Your task to perform on an android device: find which apps use the phone's location Image 0: 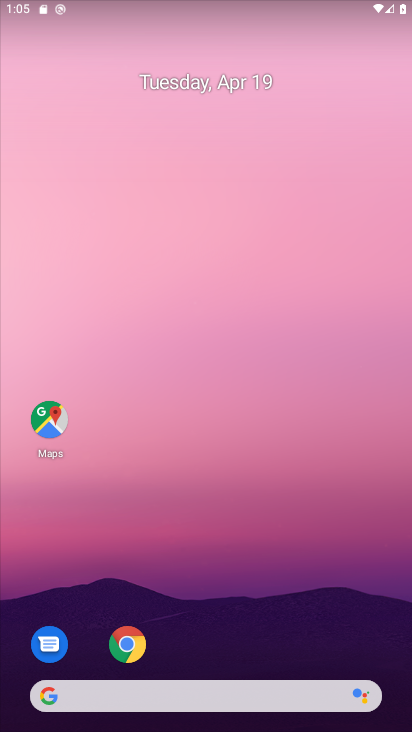
Step 0: drag from (252, 423) to (403, 161)
Your task to perform on an android device: find which apps use the phone's location Image 1: 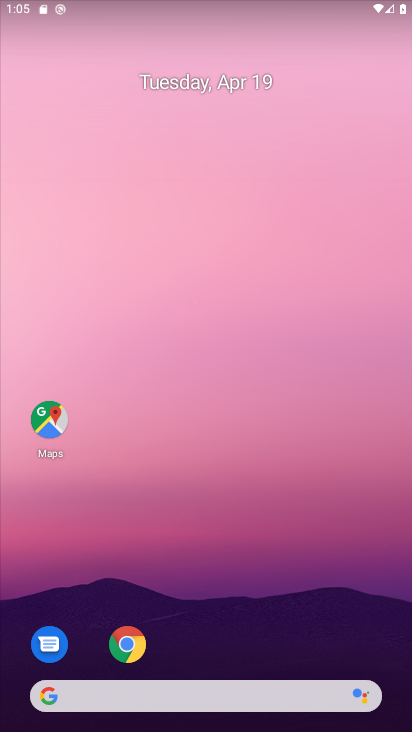
Step 1: drag from (220, 635) to (354, 21)
Your task to perform on an android device: find which apps use the phone's location Image 2: 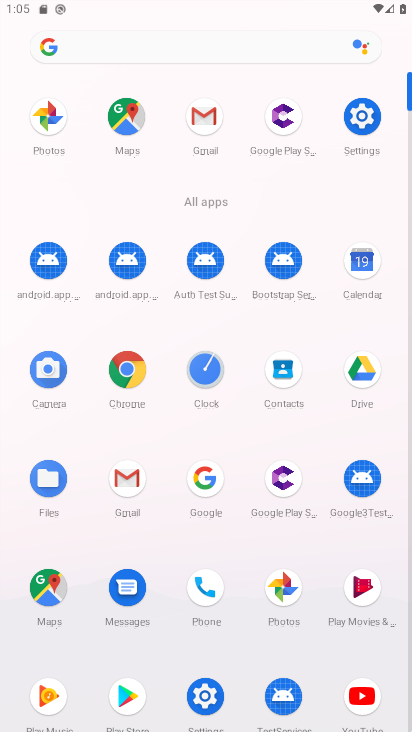
Step 2: click (363, 123)
Your task to perform on an android device: find which apps use the phone's location Image 3: 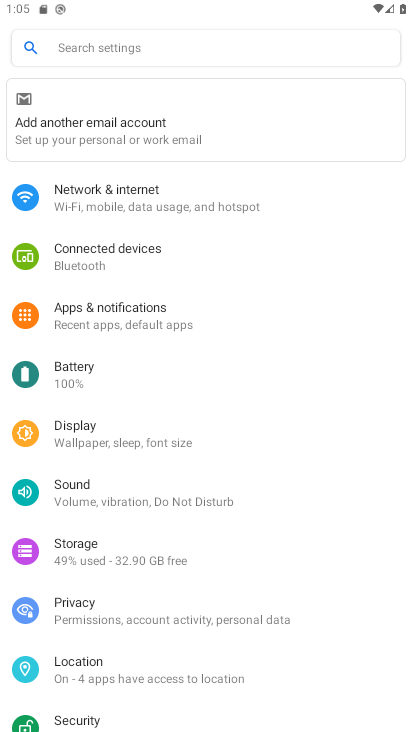
Step 3: click (73, 665)
Your task to perform on an android device: find which apps use the phone's location Image 4: 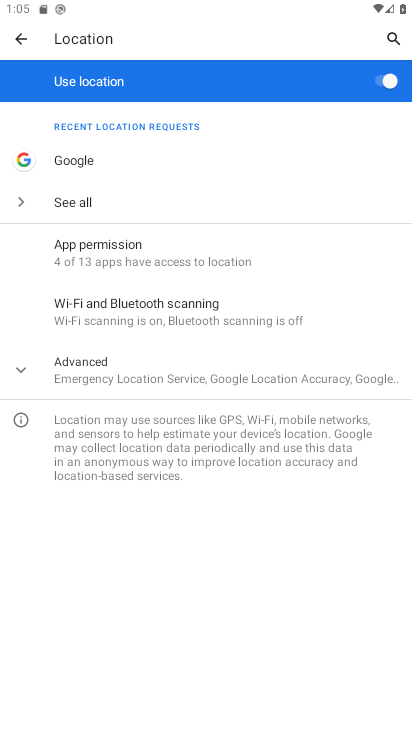
Step 4: click (122, 255)
Your task to perform on an android device: find which apps use the phone's location Image 5: 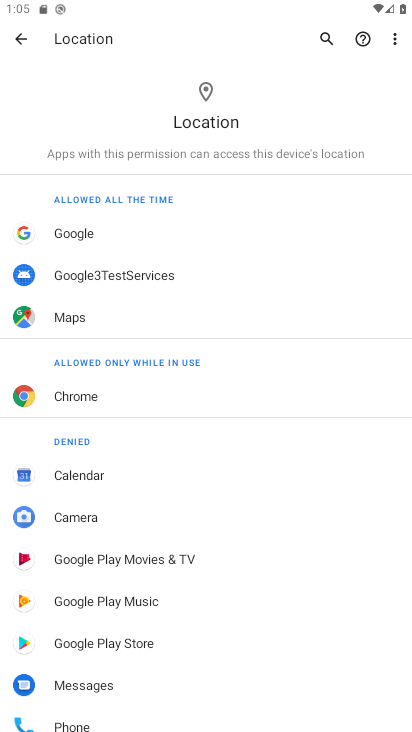
Step 5: task complete